Your task to perform on an android device: turn on notifications settings in the gmail app Image 0: 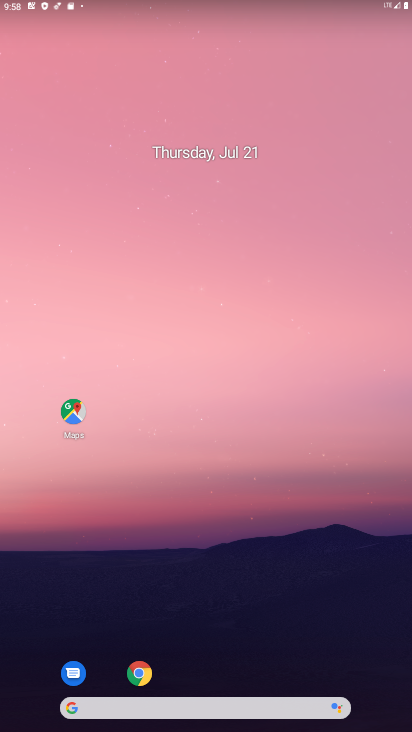
Step 0: drag from (211, 658) to (224, 145)
Your task to perform on an android device: turn on notifications settings in the gmail app Image 1: 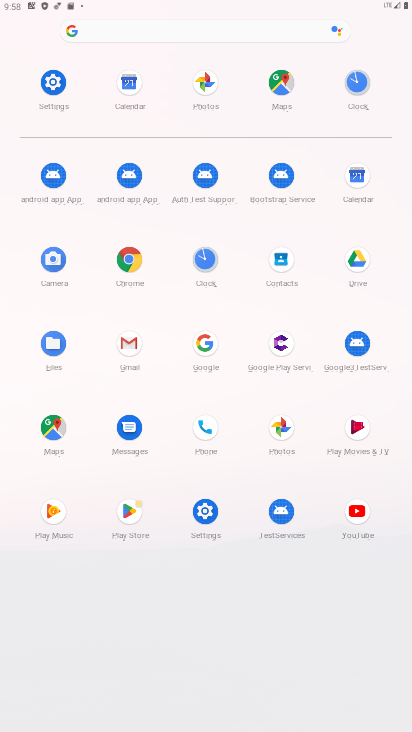
Step 1: click (122, 335)
Your task to perform on an android device: turn on notifications settings in the gmail app Image 2: 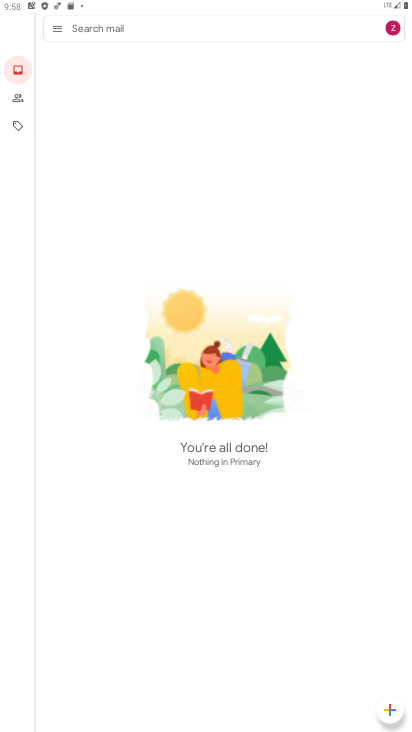
Step 2: click (49, 26)
Your task to perform on an android device: turn on notifications settings in the gmail app Image 3: 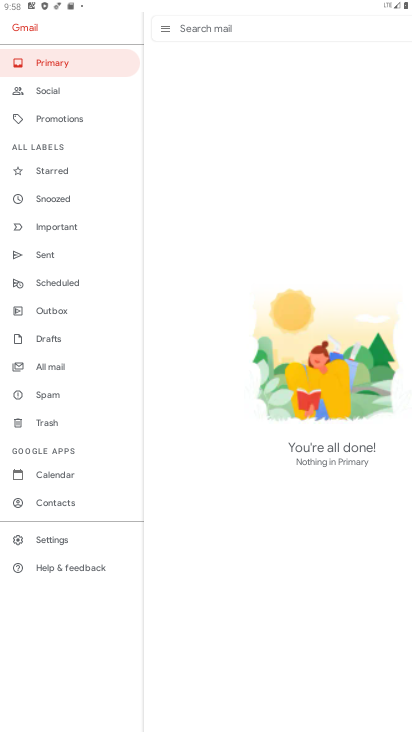
Step 3: click (66, 545)
Your task to perform on an android device: turn on notifications settings in the gmail app Image 4: 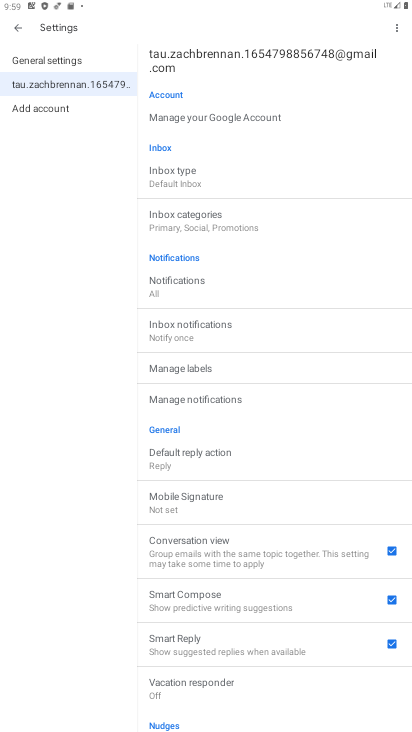
Step 4: click (233, 404)
Your task to perform on an android device: turn on notifications settings in the gmail app Image 5: 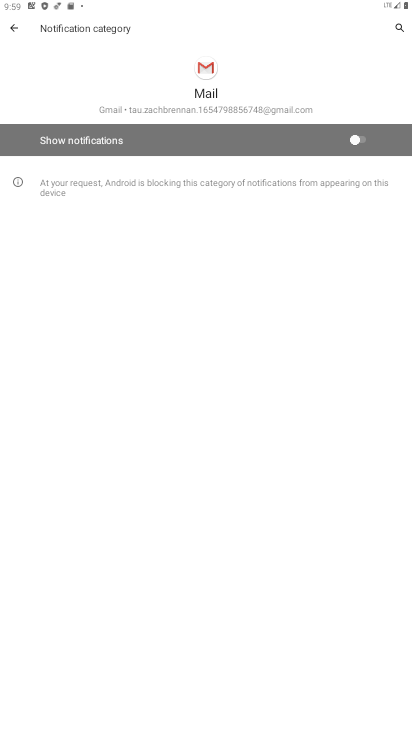
Step 5: click (360, 145)
Your task to perform on an android device: turn on notifications settings in the gmail app Image 6: 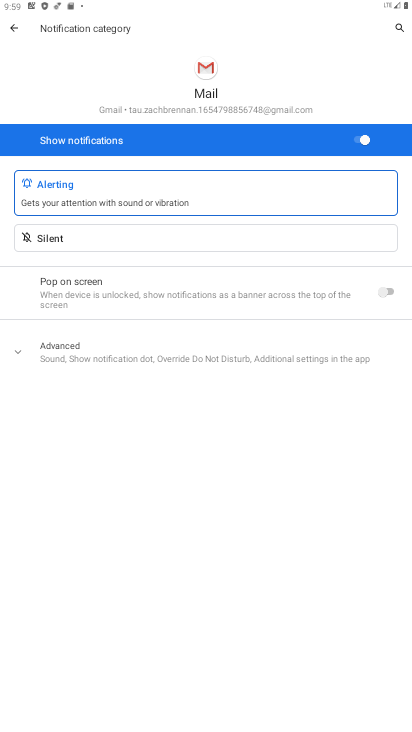
Step 6: task complete